Your task to perform on an android device: open wifi settings Image 0: 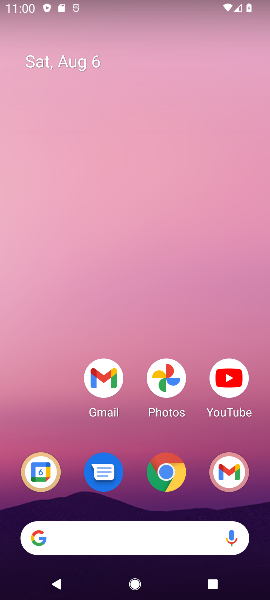
Step 0: drag from (148, 569) to (134, 134)
Your task to perform on an android device: open wifi settings Image 1: 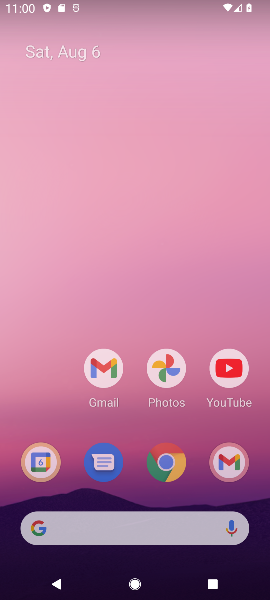
Step 1: drag from (195, 499) to (132, 142)
Your task to perform on an android device: open wifi settings Image 2: 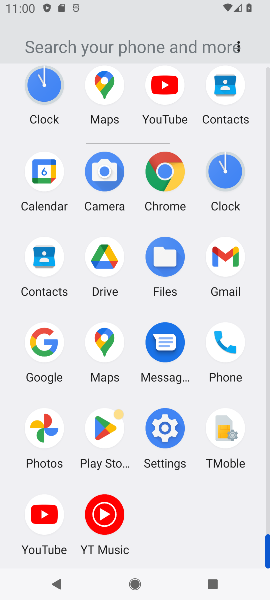
Step 2: drag from (144, 395) to (65, 140)
Your task to perform on an android device: open wifi settings Image 3: 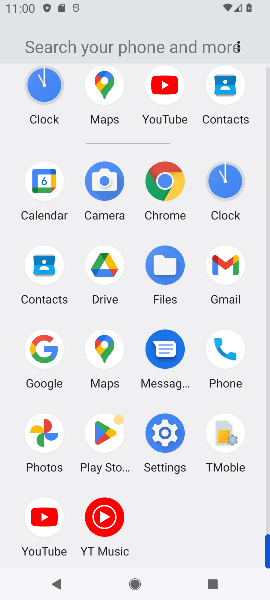
Step 3: click (174, 428)
Your task to perform on an android device: open wifi settings Image 4: 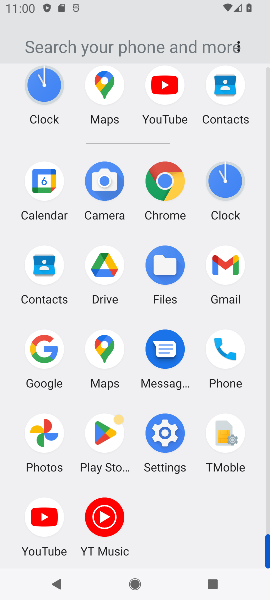
Step 4: click (167, 430)
Your task to perform on an android device: open wifi settings Image 5: 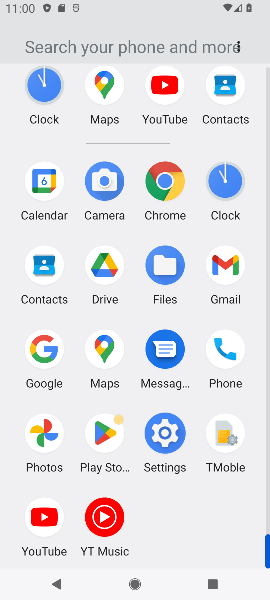
Step 5: click (167, 430)
Your task to perform on an android device: open wifi settings Image 6: 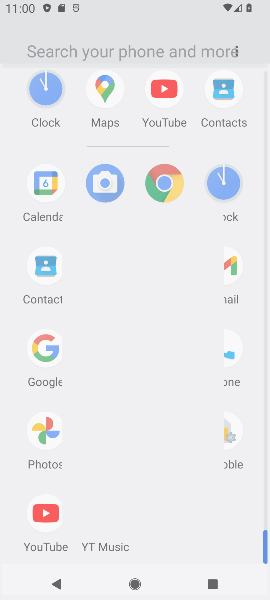
Step 6: click (154, 441)
Your task to perform on an android device: open wifi settings Image 7: 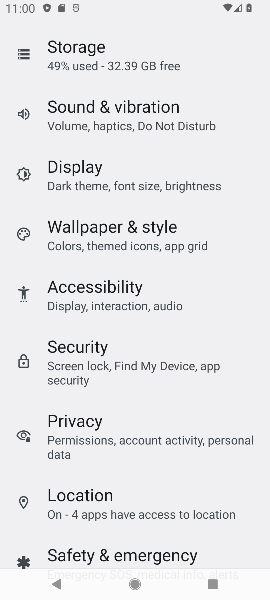
Step 7: drag from (86, 54) to (150, 533)
Your task to perform on an android device: open wifi settings Image 8: 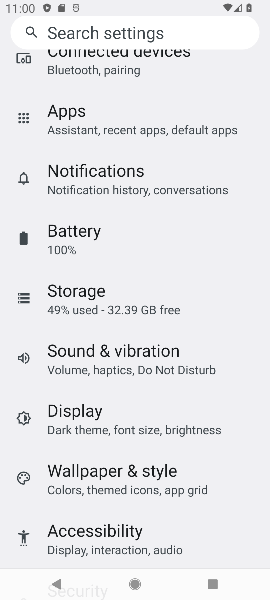
Step 8: drag from (90, 136) to (163, 594)
Your task to perform on an android device: open wifi settings Image 9: 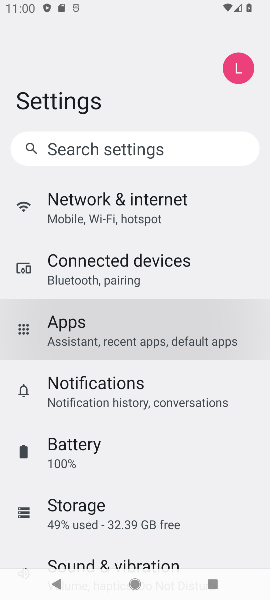
Step 9: drag from (122, 169) to (179, 564)
Your task to perform on an android device: open wifi settings Image 10: 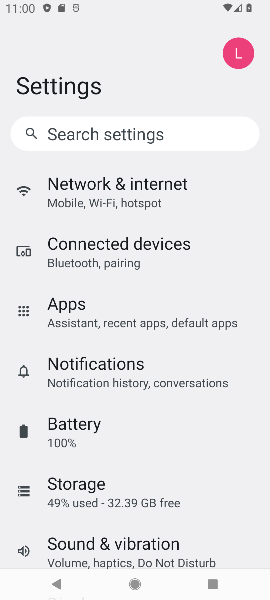
Step 10: click (111, 185)
Your task to perform on an android device: open wifi settings Image 11: 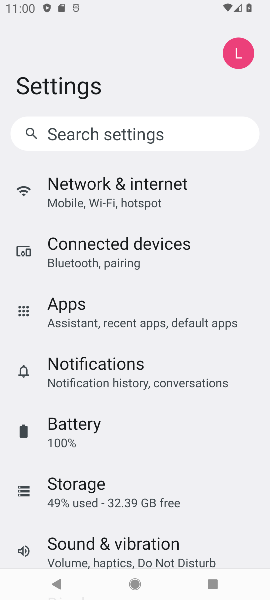
Step 11: click (108, 189)
Your task to perform on an android device: open wifi settings Image 12: 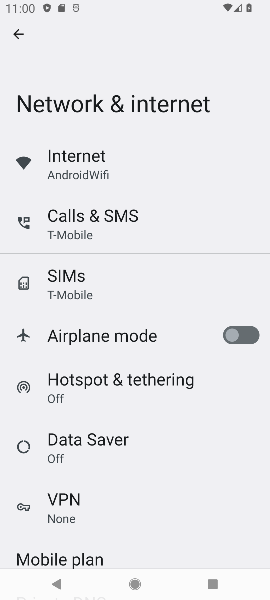
Step 12: click (84, 166)
Your task to perform on an android device: open wifi settings Image 13: 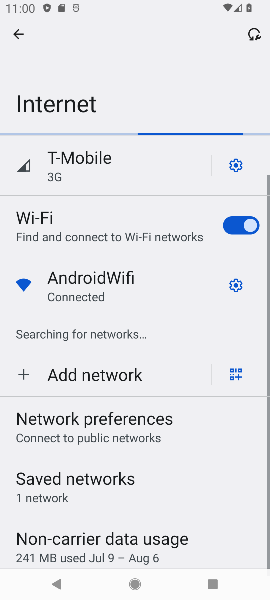
Step 13: task complete